Your task to perform on an android device: Go to Google maps Image 0: 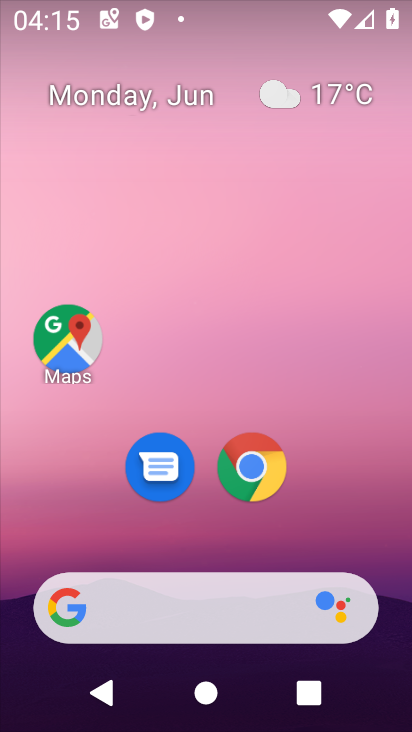
Step 0: click (86, 336)
Your task to perform on an android device: Go to Google maps Image 1: 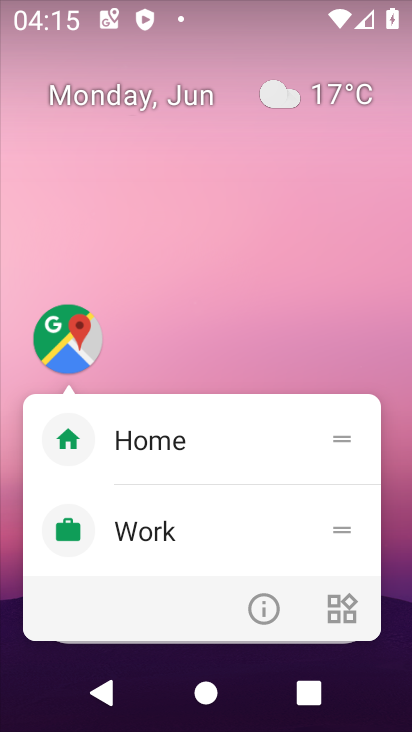
Step 1: click (71, 349)
Your task to perform on an android device: Go to Google maps Image 2: 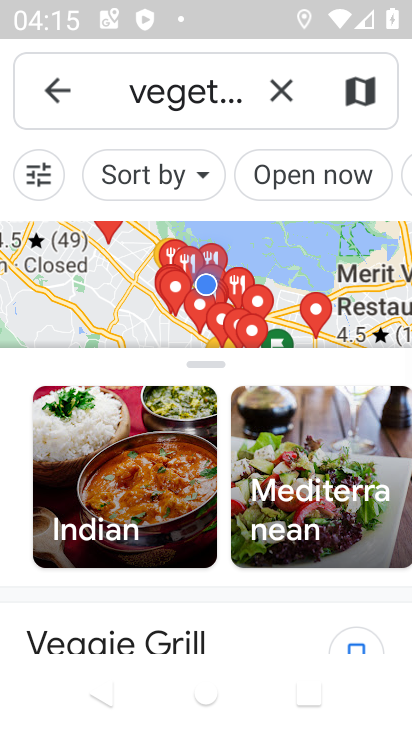
Step 2: click (276, 82)
Your task to perform on an android device: Go to Google maps Image 3: 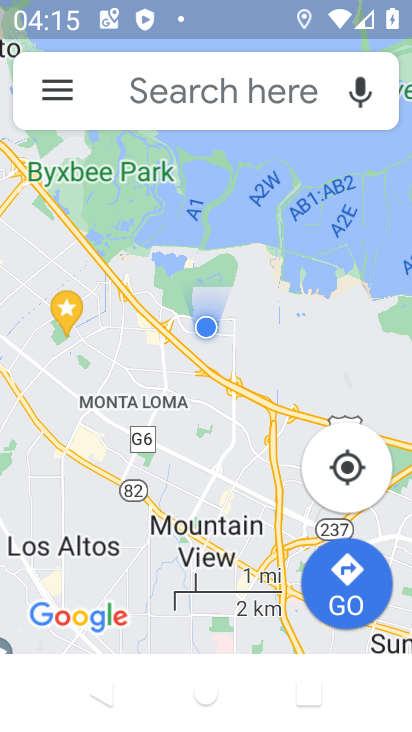
Step 3: task complete